Your task to perform on an android device: toggle priority inbox in the gmail app Image 0: 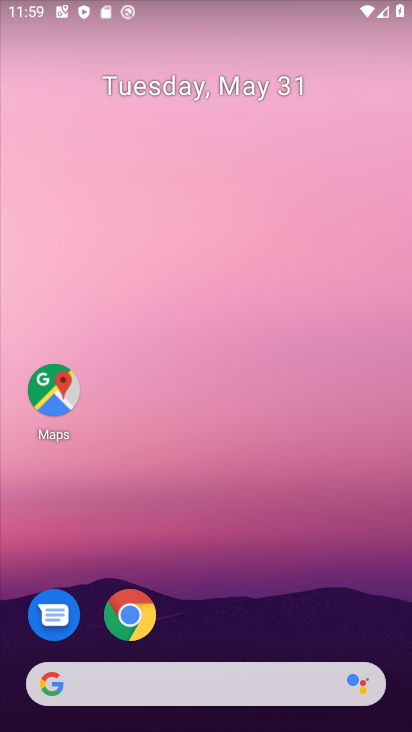
Step 0: task complete